Your task to perform on an android device: When is my next appointment? Image 0: 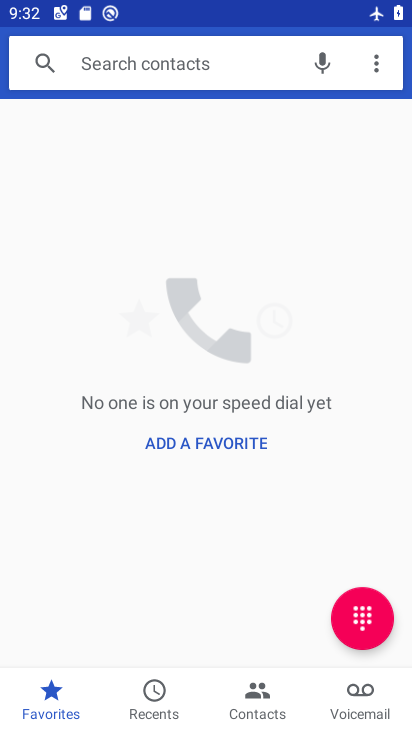
Step 0: press home button
Your task to perform on an android device: When is my next appointment? Image 1: 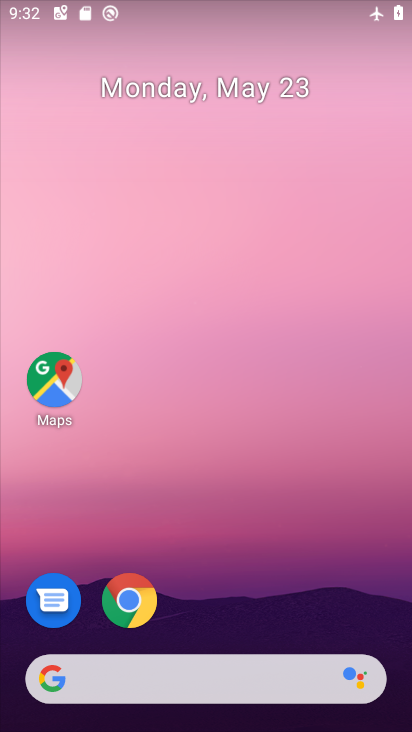
Step 1: drag from (218, 714) to (224, 149)
Your task to perform on an android device: When is my next appointment? Image 2: 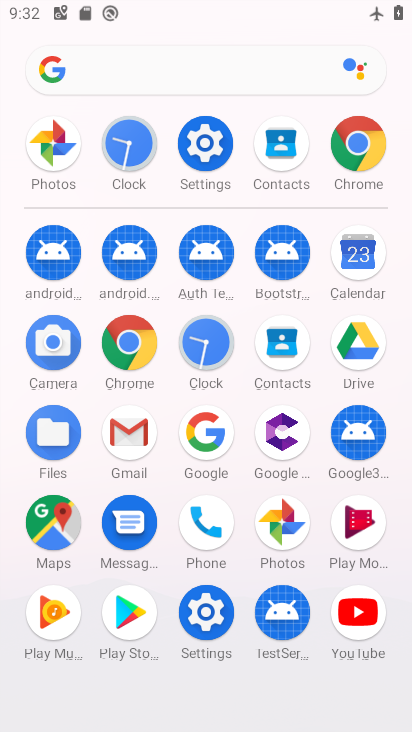
Step 2: click (364, 257)
Your task to perform on an android device: When is my next appointment? Image 3: 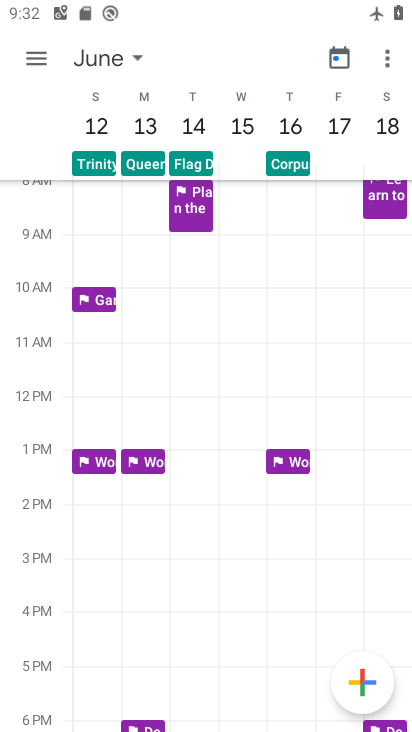
Step 3: click (133, 52)
Your task to perform on an android device: When is my next appointment? Image 4: 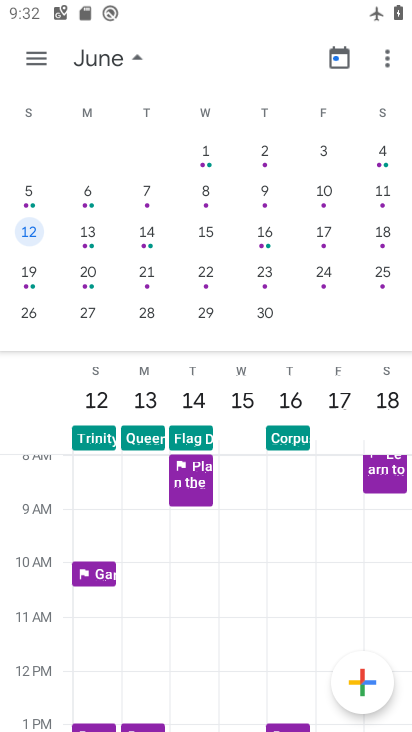
Step 4: drag from (47, 232) to (359, 203)
Your task to perform on an android device: When is my next appointment? Image 5: 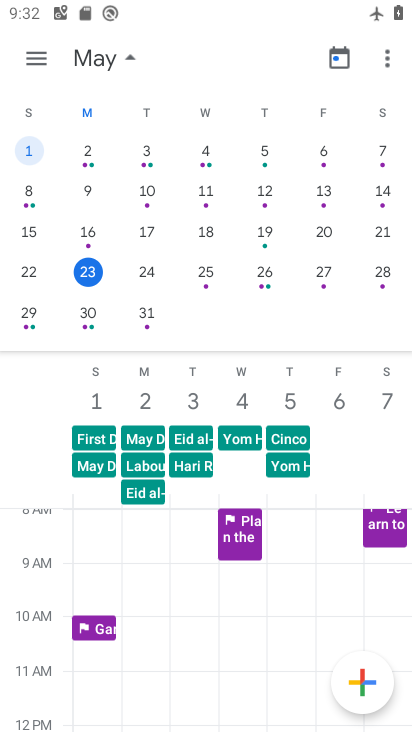
Step 5: click (143, 266)
Your task to perform on an android device: When is my next appointment? Image 6: 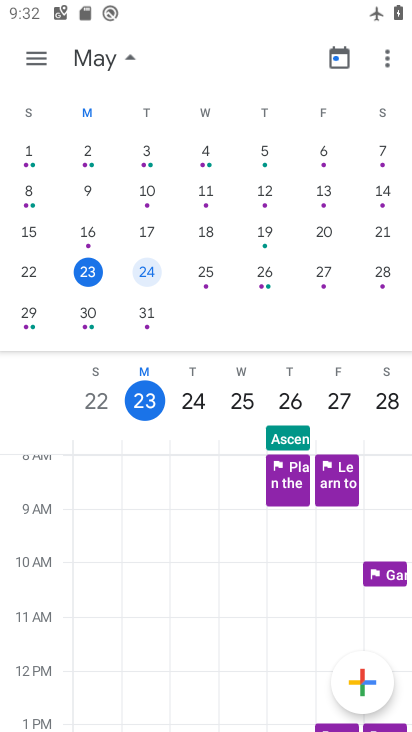
Step 6: click (144, 272)
Your task to perform on an android device: When is my next appointment? Image 7: 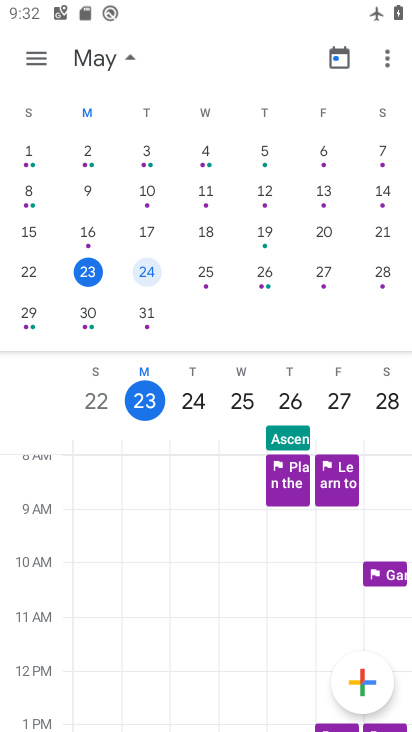
Step 7: click (130, 56)
Your task to perform on an android device: When is my next appointment? Image 8: 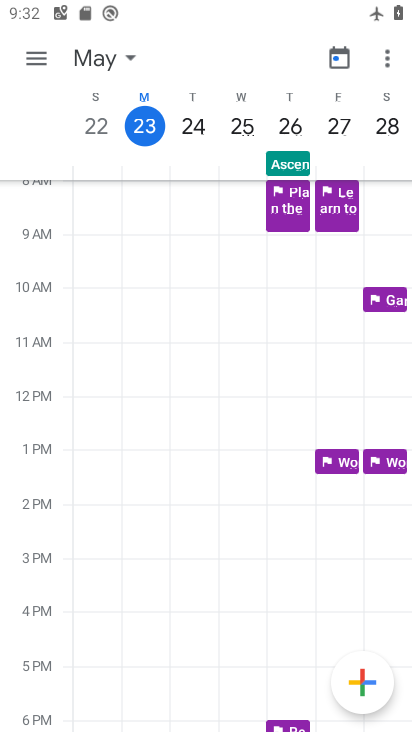
Step 8: task complete